Your task to perform on an android device: toggle sleep mode Image 0: 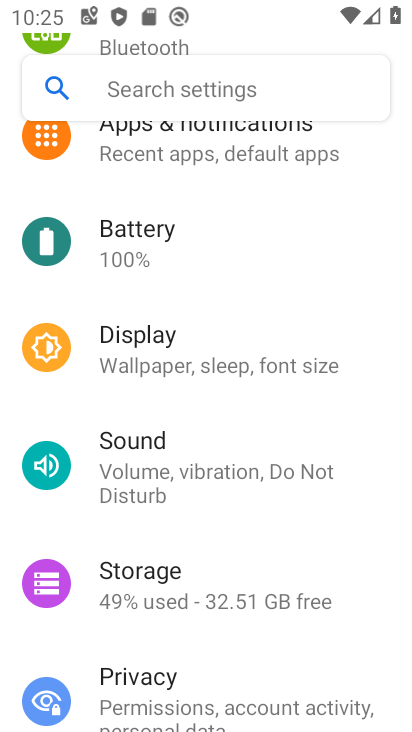
Step 0: press home button
Your task to perform on an android device: toggle sleep mode Image 1: 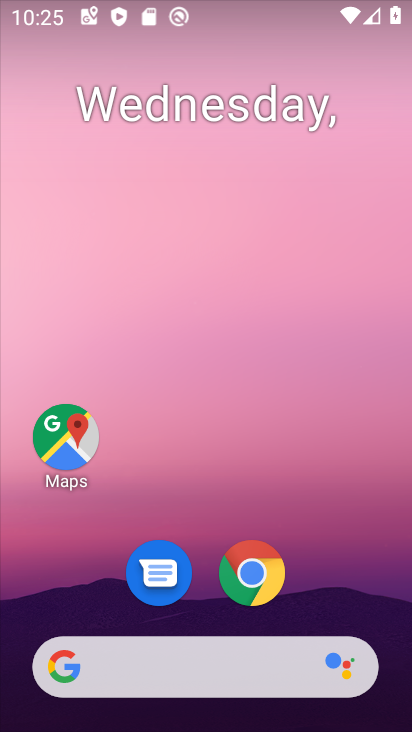
Step 1: drag from (200, 651) to (227, 183)
Your task to perform on an android device: toggle sleep mode Image 2: 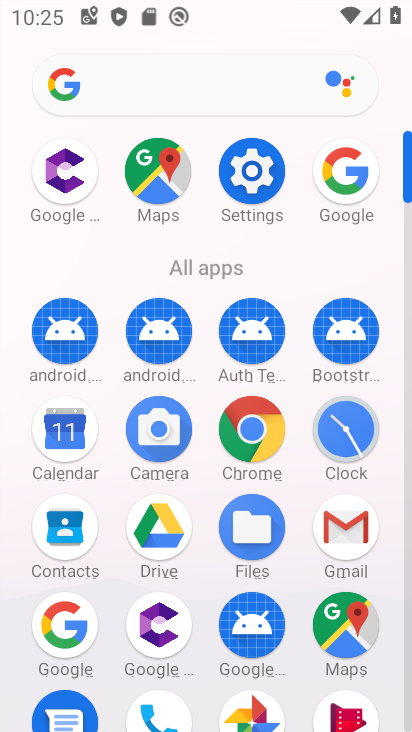
Step 2: click (247, 185)
Your task to perform on an android device: toggle sleep mode Image 3: 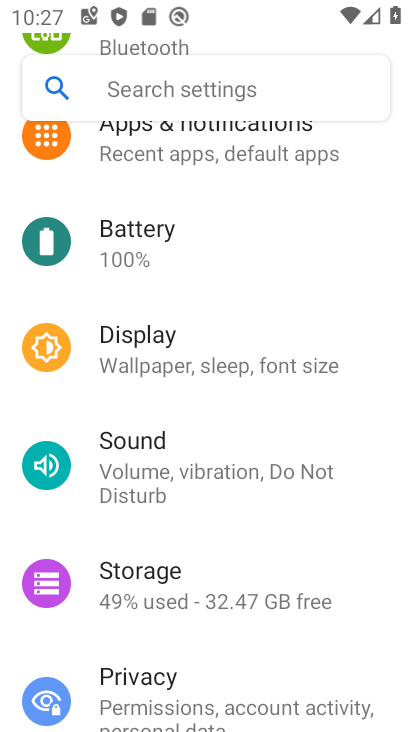
Step 3: click (150, 351)
Your task to perform on an android device: toggle sleep mode Image 4: 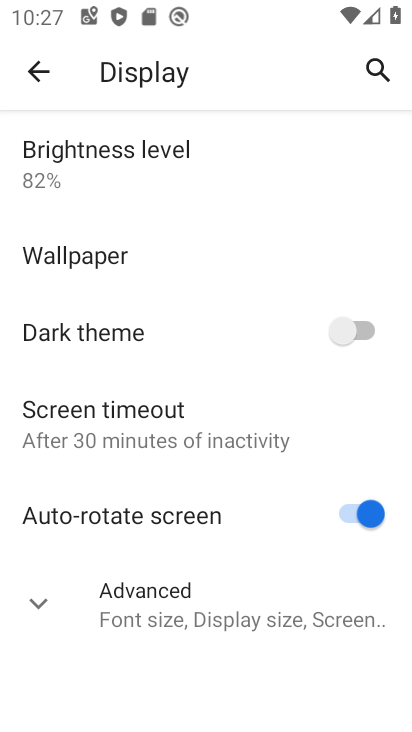
Step 4: click (123, 415)
Your task to perform on an android device: toggle sleep mode Image 5: 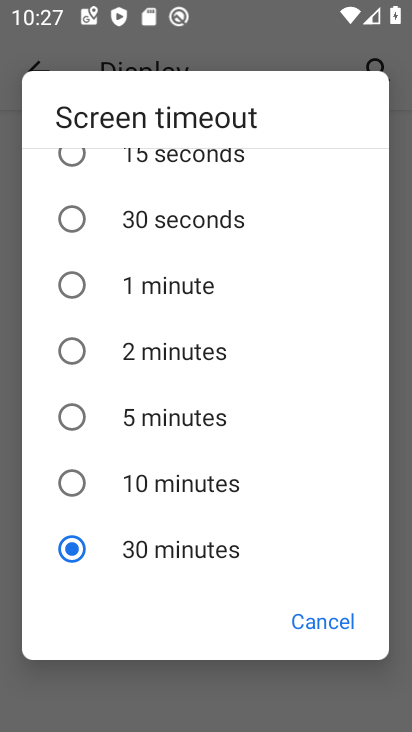
Step 5: click (158, 427)
Your task to perform on an android device: toggle sleep mode Image 6: 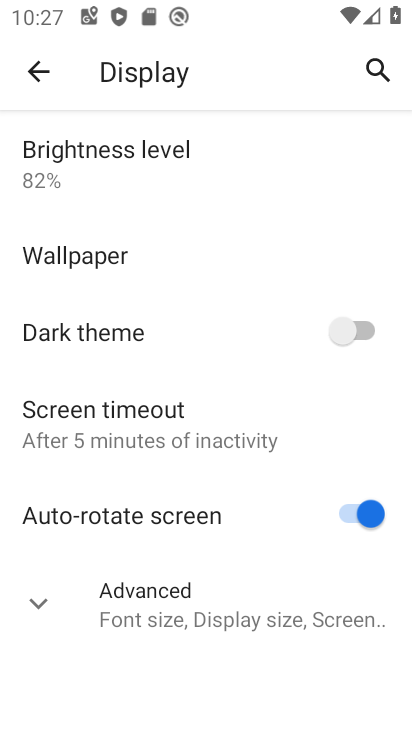
Step 6: task complete